Your task to perform on an android device: toggle improve location accuracy Image 0: 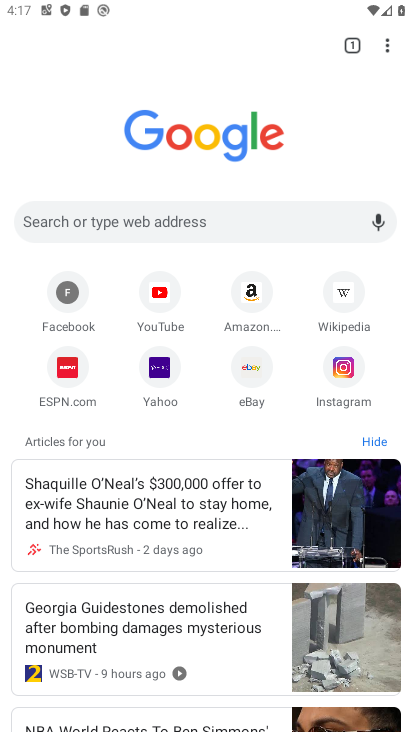
Step 0: drag from (244, 14) to (199, 688)
Your task to perform on an android device: toggle improve location accuracy Image 1: 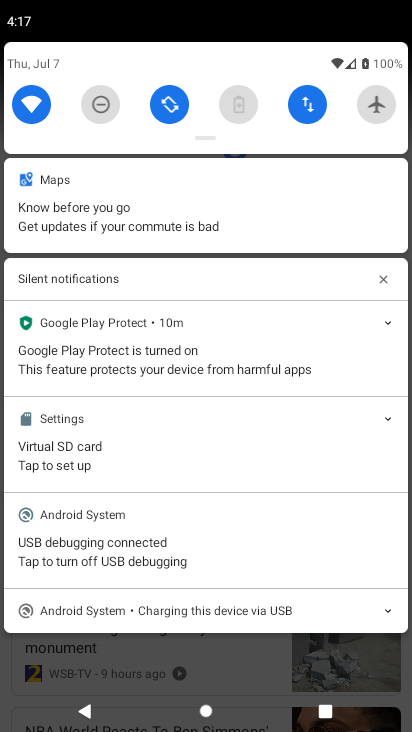
Step 1: drag from (205, 78) to (253, 575)
Your task to perform on an android device: toggle improve location accuracy Image 2: 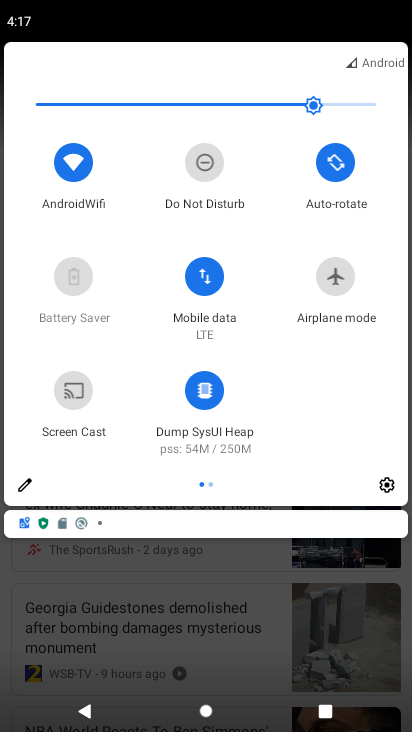
Step 2: click (385, 483)
Your task to perform on an android device: toggle improve location accuracy Image 3: 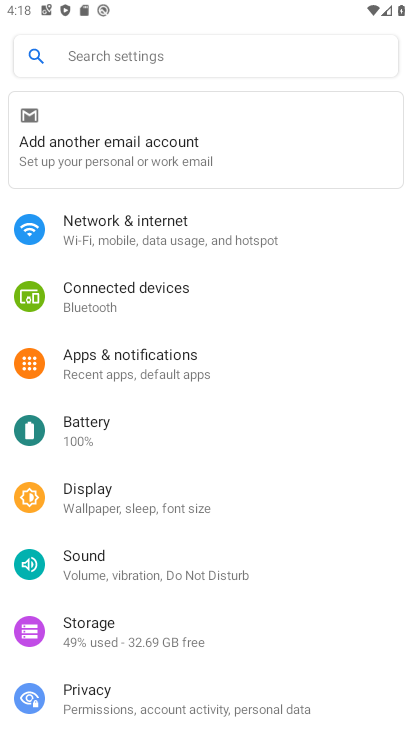
Step 3: drag from (109, 633) to (137, 198)
Your task to perform on an android device: toggle improve location accuracy Image 4: 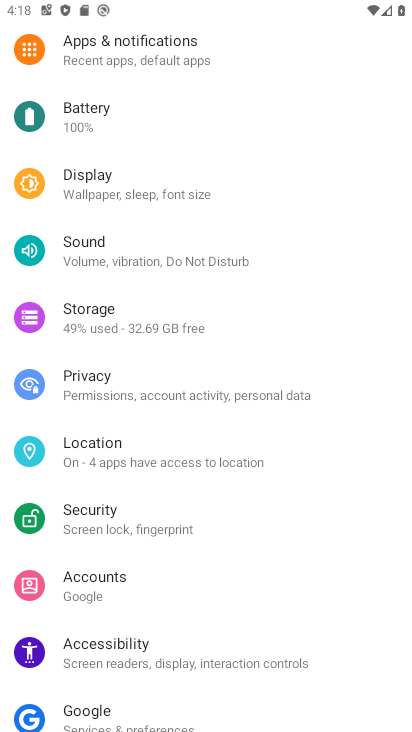
Step 4: click (87, 446)
Your task to perform on an android device: toggle improve location accuracy Image 5: 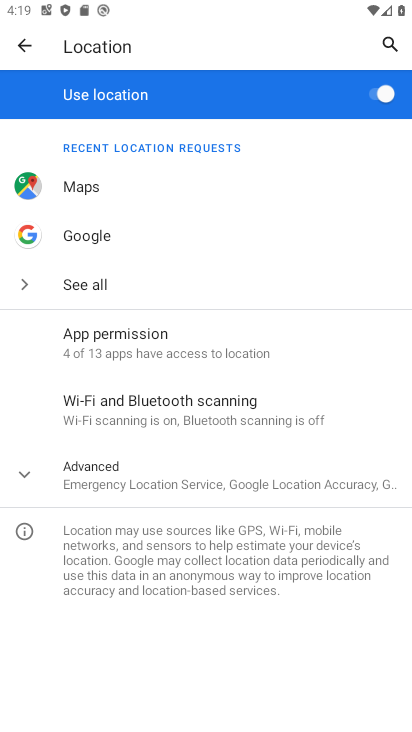
Step 5: click (95, 467)
Your task to perform on an android device: toggle improve location accuracy Image 6: 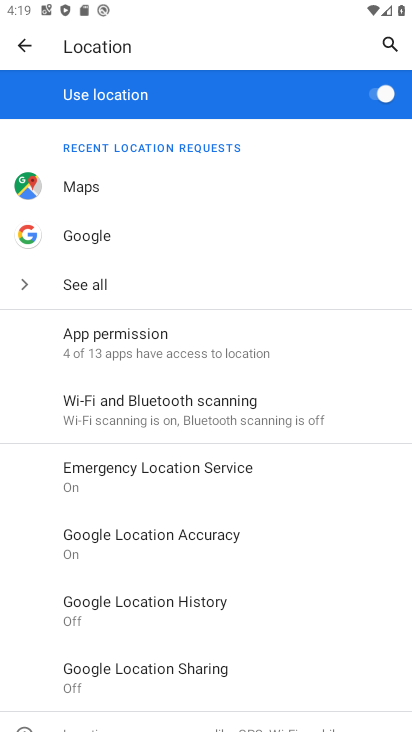
Step 6: click (160, 537)
Your task to perform on an android device: toggle improve location accuracy Image 7: 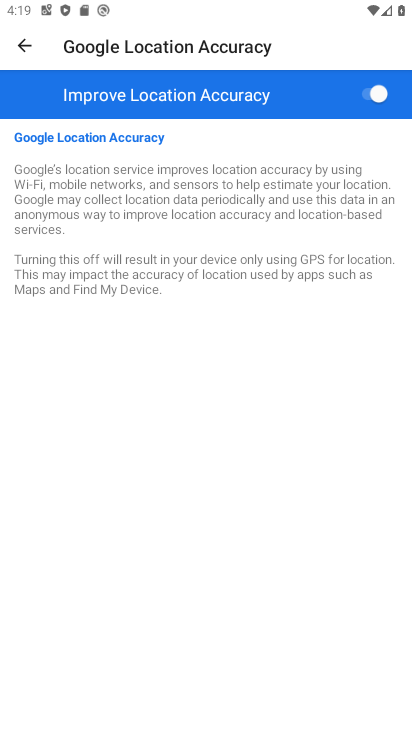
Step 7: click (376, 98)
Your task to perform on an android device: toggle improve location accuracy Image 8: 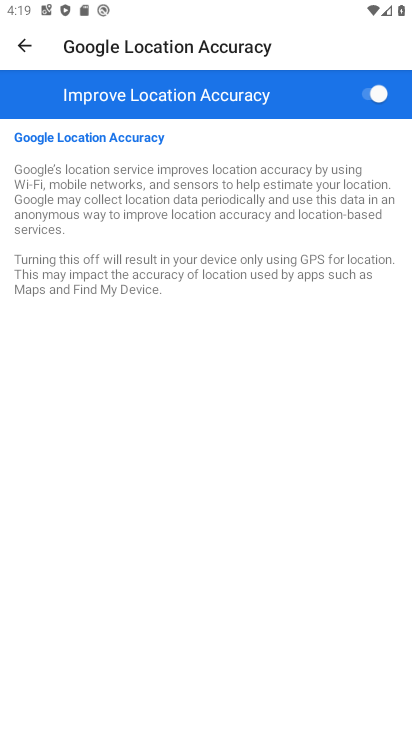
Step 8: click (376, 98)
Your task to perform on an android device: toggle improve location accuracy Image 9: 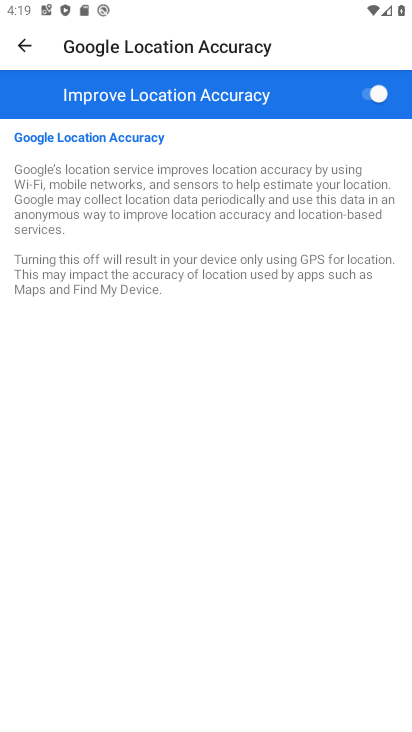
Step 9: click (376, 98)
Your task to perform on an android device: toggle improve location accuracy Image 10: 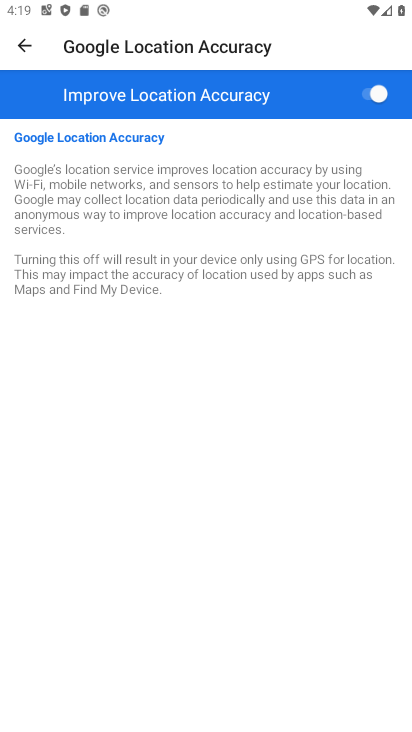
Step 10: task complete